Your task to perform on an android device: check battery use Image 0: 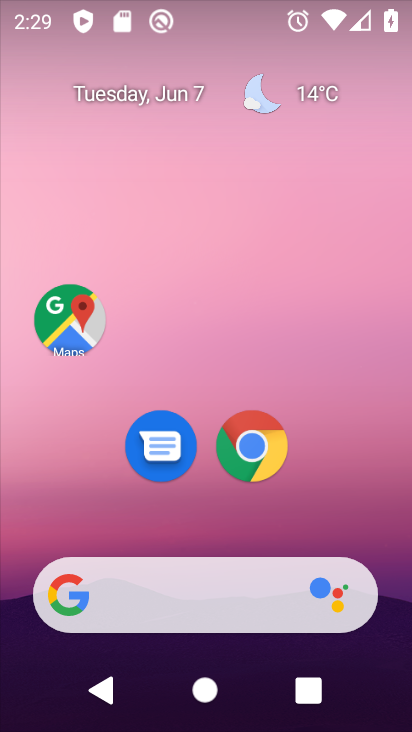
Step 0: drag from (400, 610) to (372, 60)
Your task to perform on an android device: check battery use Image 1: 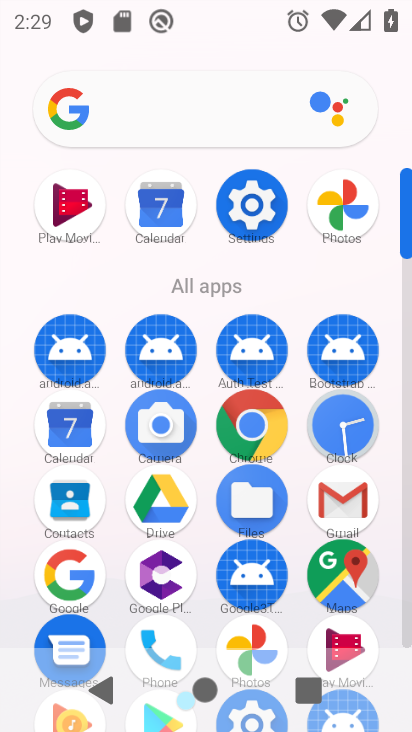
Step 1: click (408, 628)
Your task to perform on an android device: check battery use Image 2: 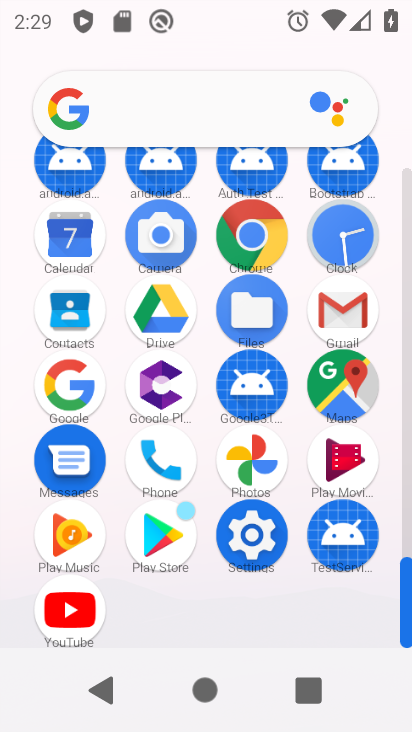
Step 2: click (252, 534)
Your task to perform on an android device: check battery use Image 3: 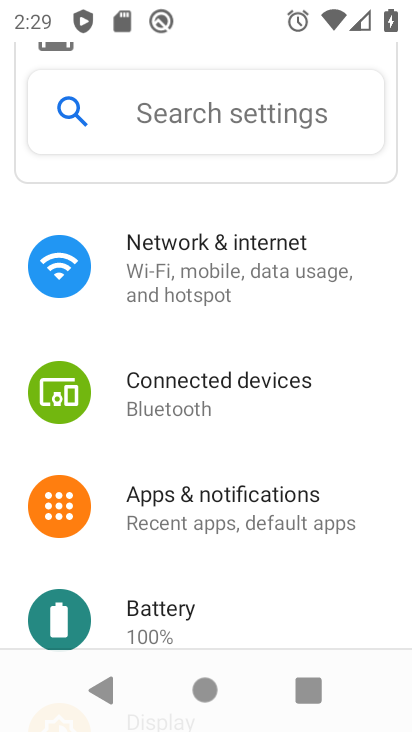
Step 3: drag from (347, 597) to (318, 214)
Your task to perform on an android device: check battery use Image 4: 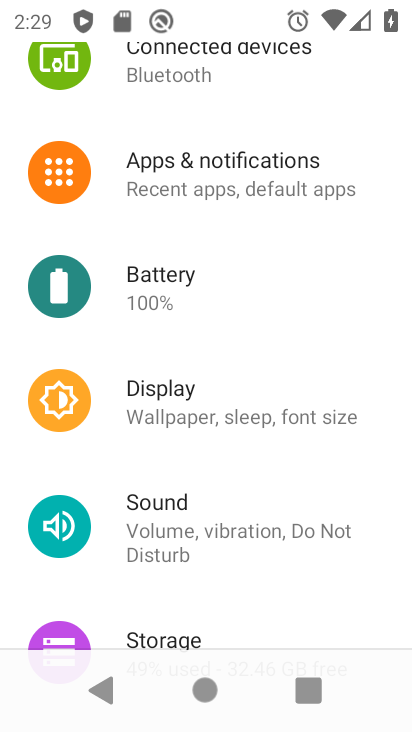
Step 4: click (151, 285)
Your task to perform on an android device: check battery use Image 5: 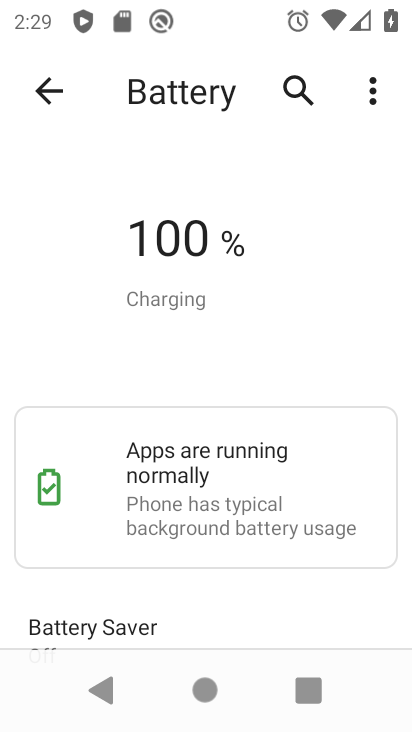
Step 5: click (373, 104)
Your task to perform on an android device: check battery use Image 6: 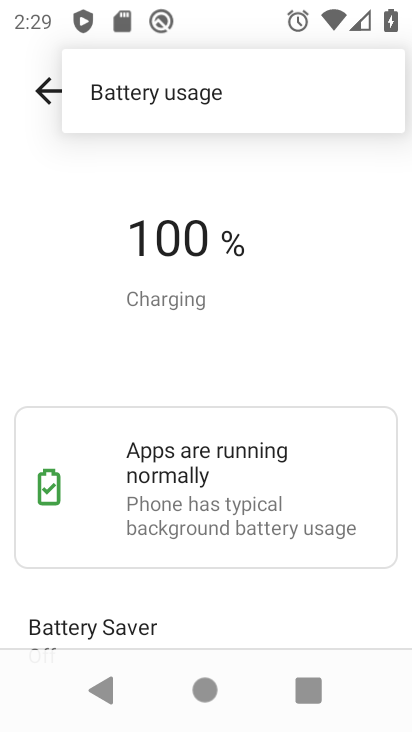
Step 6: click (182, 94)
Your task to perform on an android device: check battery use Image 7: 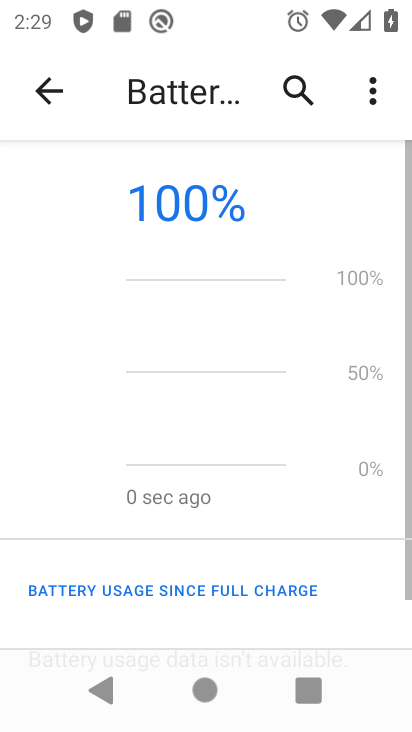
Step 7: task complete